Your task to perform on an android device: create a new album in the google photos Image 0: 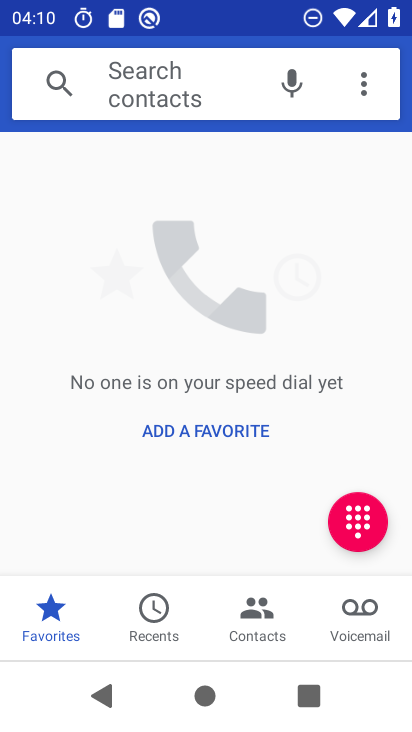
Step 0: press home button
Your task to perform on an android device: create a new album in the google photos Image 1: 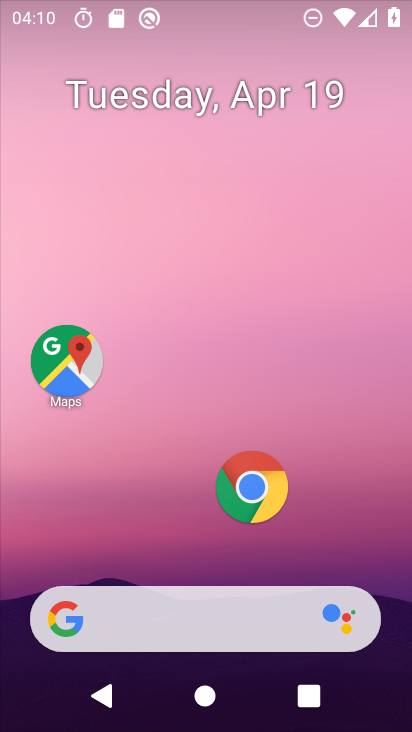
Step 1: drag from (179, 542) to (240, 40)
Your task to perform on an android device: create a new album in the google photos Image 2: 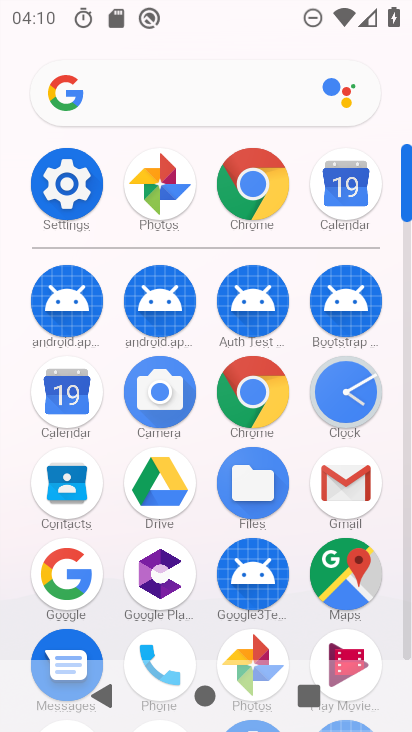
Step 2: click (153, 168)
Your task to perform on an android device: create a new album in the google photos Image 3: 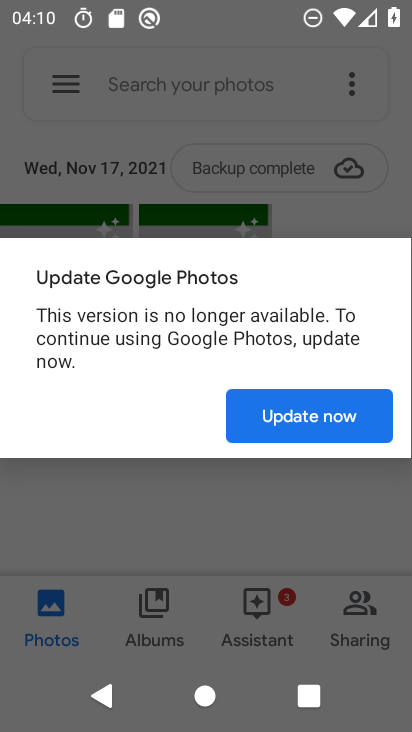
Step 3: click (164, 520)
Your task to perform on an android device: create a new album in the google photos Image 4: 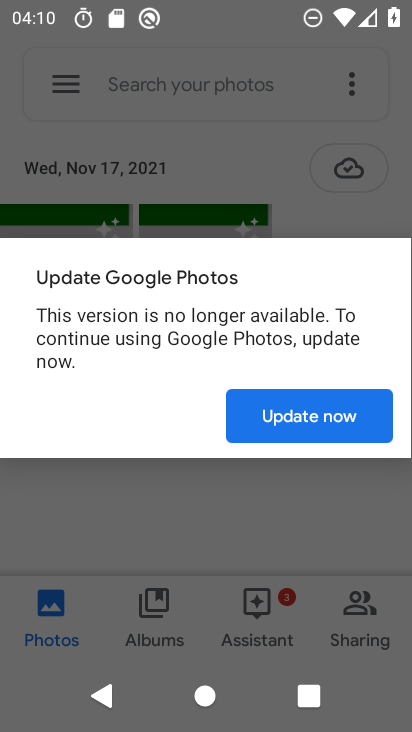
Step 4: click (270, 408)
Your task to perform on an android device: create a new album in the google photos Image 5: 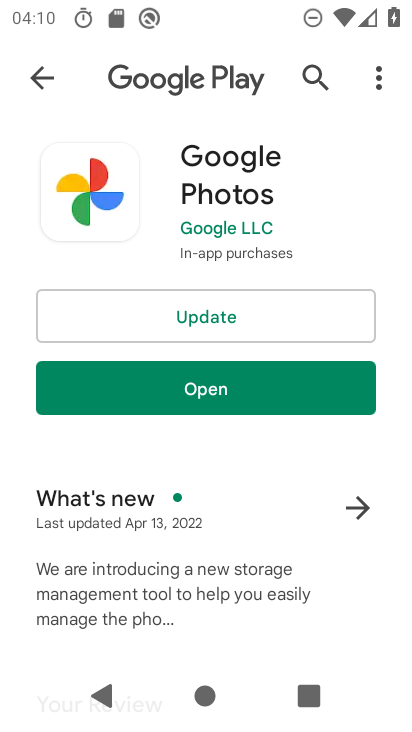
Step 5: click (169, 396)
Your task to perform on an android device: create a new album in the google photos Image 6: 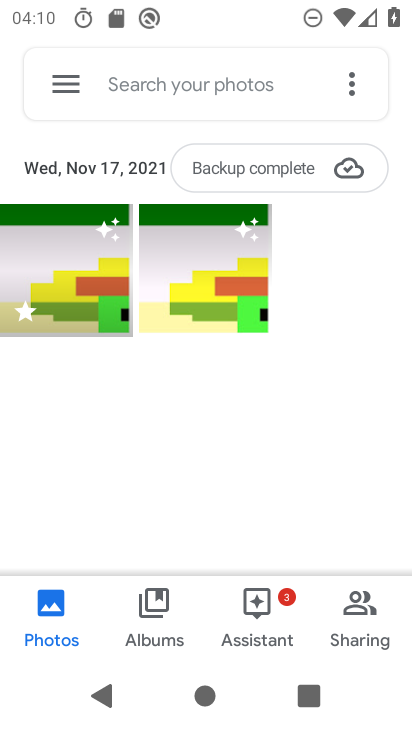
Step 6: click (355, 82)
Your task to perform on an android device: create a new album in the google photos Image 7: 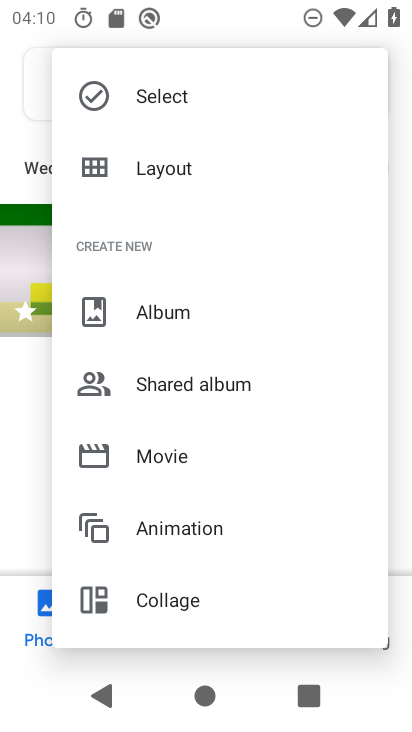
Step 7: click (199, 309)
Your task to perform on an android device: create a new album in the google photos Image 8: 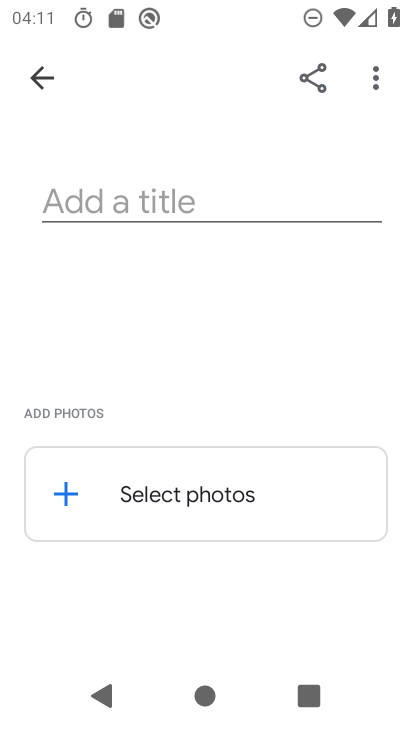
Step 8: click (117, 198)
Your task to perform on an android device: create a new album in the google photos Image 9: 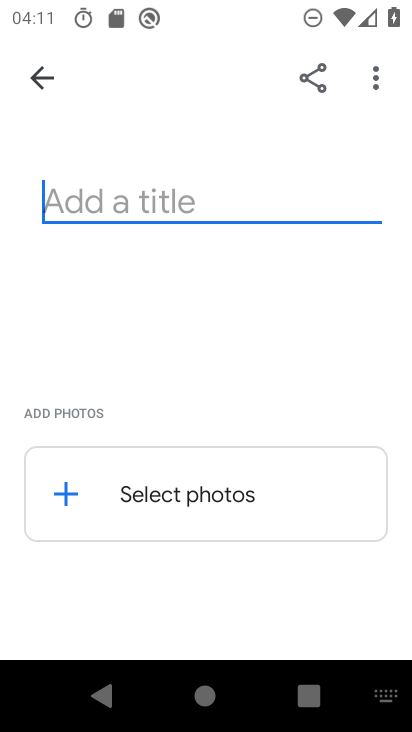
Step 9: type "gvg"
Your task to perform on an android device: create a new album in the google photos Image 10: 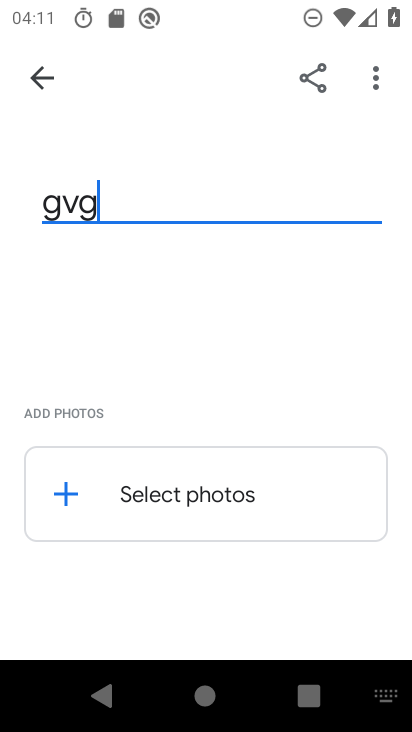
Step 10: click (221, 483)
Your task to perform on an android device: create a new album in the google photos Image 11: 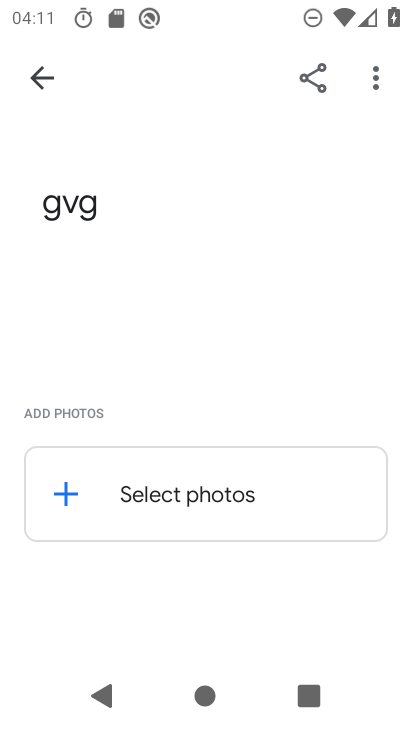
Step 11: click (164, 504)
Your task to perform on an android device: create a new album in the google photos Image 12: 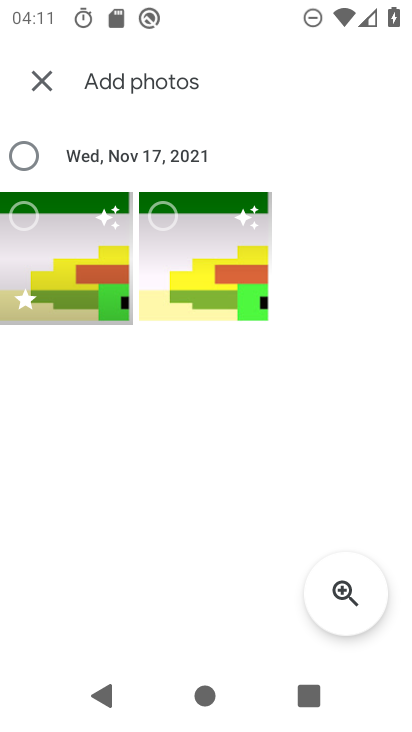
Step 12: click (29, 161)
Your task to perform on an android device: create a new album in the google photos Image 13: 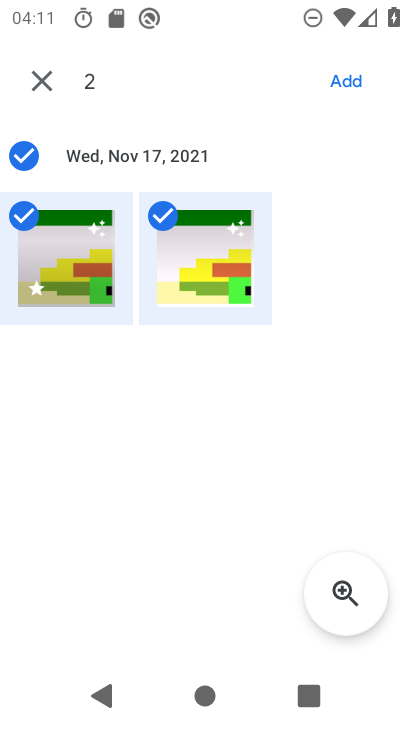
Step 13: click (353, 92)
Your task to perform on an android device: create a new album in the google photos Image 14: 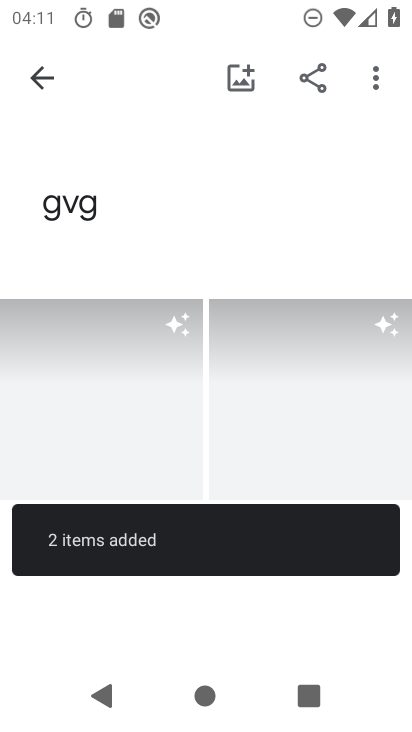
Step 14: task complete